Your task to perform on an android device: Open display settings Image 0: 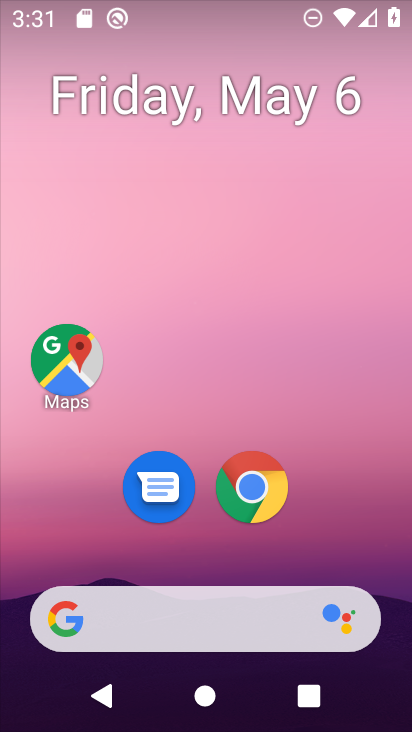
Step 0: drag from (342, 559) to (325, 35)
Your task to perform on an android device: Open display settings Image 1: 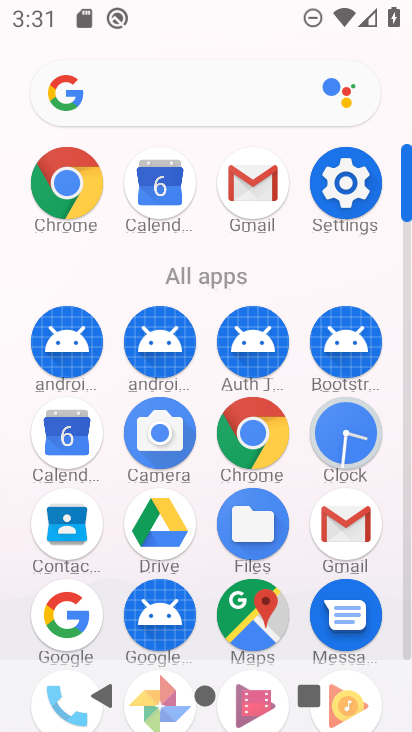
Step 1: click (342, 201)
Your task to perform on an android device: Open display settings Image 2: 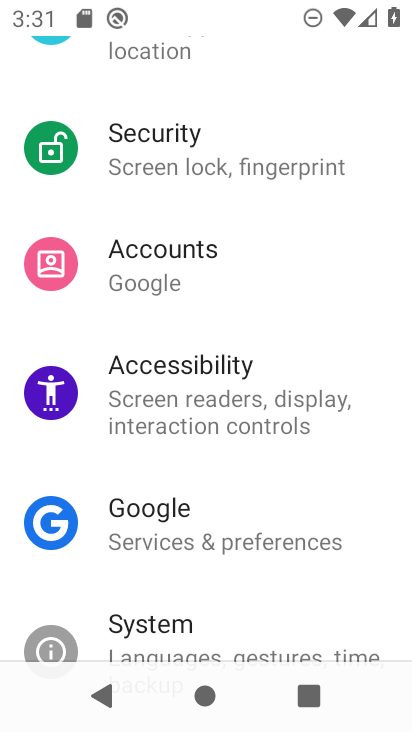
Step 2: drag from (204, 250) to (244, 426)
Your task to perform on an android device: Open display settings Image 3: 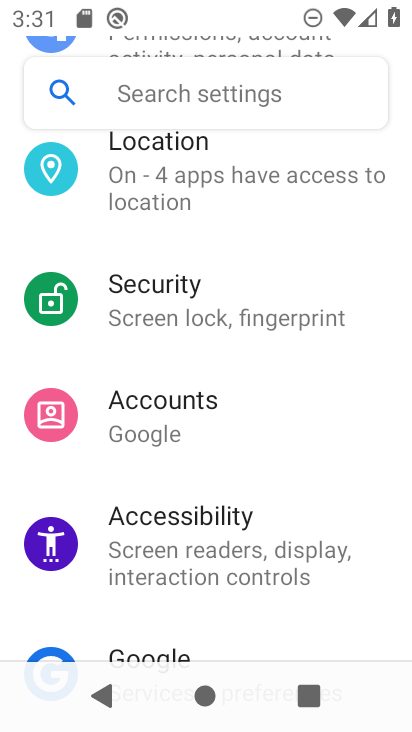
Step 3: drag from (180, 253) to (208, 429)
Your task to perform on an android device: Open display settings Image 4: 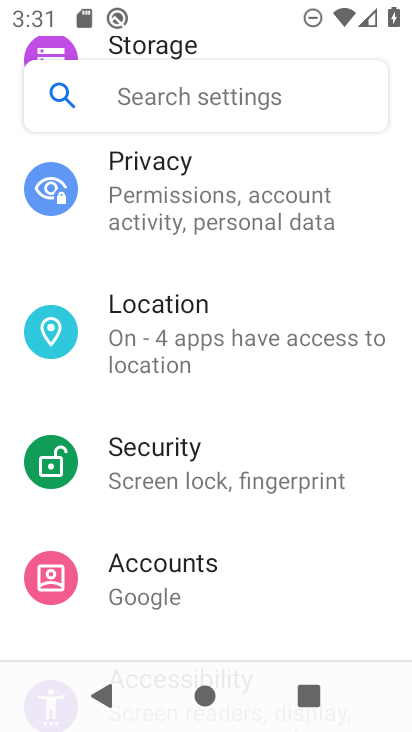
Step 4: drag from (183, 261) to (238, 447)
Your task to perform on an android device: Open display settings Image 5: 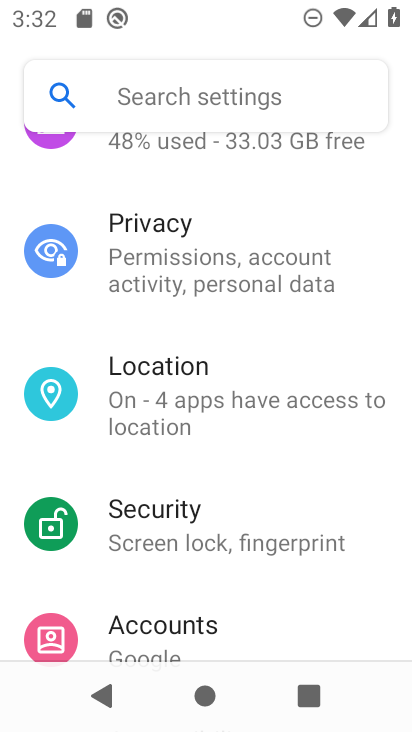
Step 5: drag from (207, 276) to (220, 537)
Your task to perform on an android device: Open display settings Image 6: 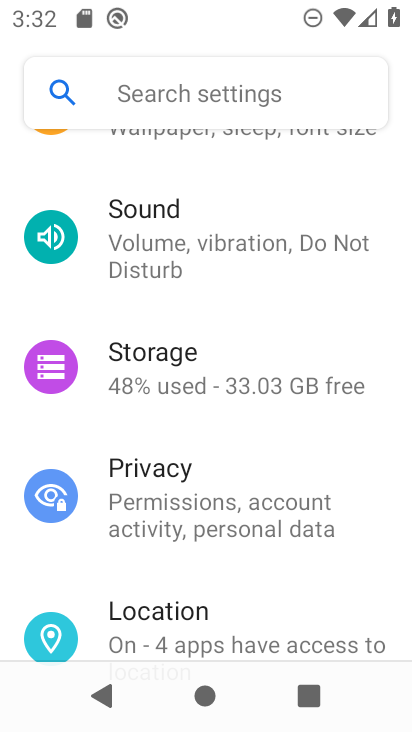
Step 6: drag from (282, 296) to (249, 467)
Your task to perform on an android device: Open display settings Image 7: 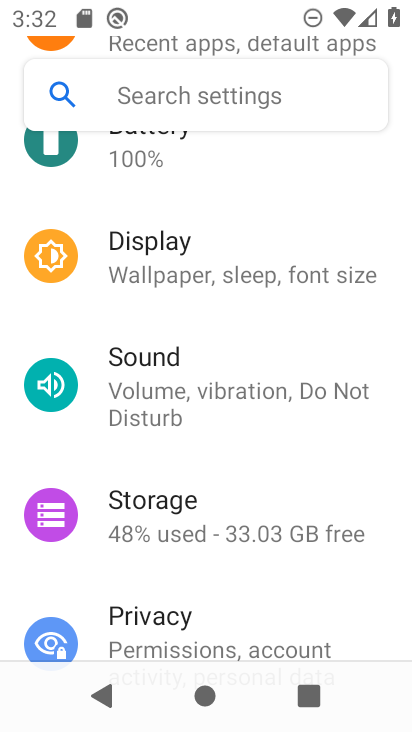
Step 7: click (137, 229)
Your task to perform on an android device: Open display settings Image 8: 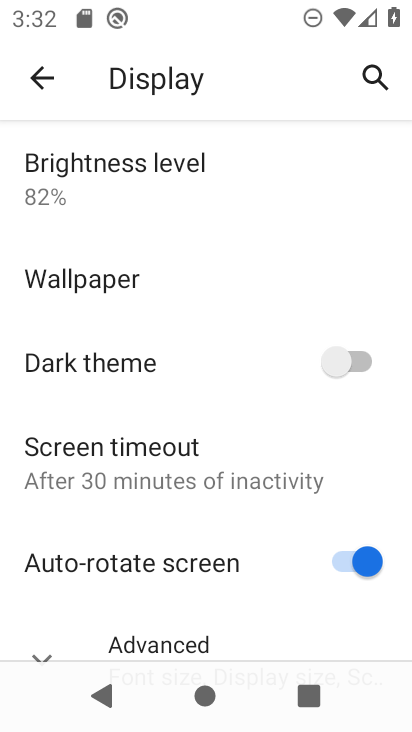
Step 8: task complete